Your task to perform on an android device: turn off smart reply in the gmail app Image 0: 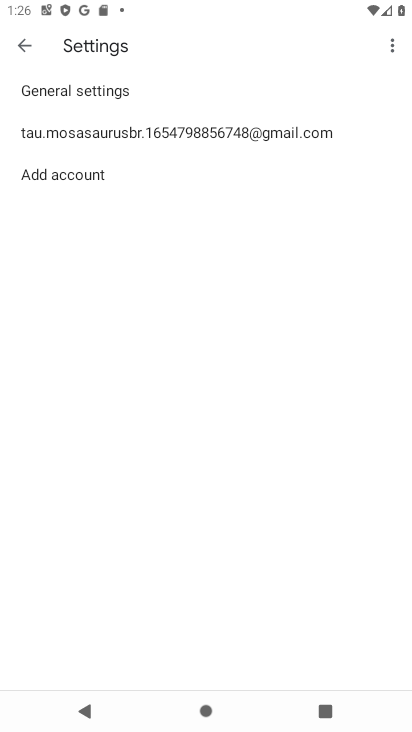
Step 0: press home button
Your task to perform on an android device: turn off smart reply in the gmail app Image 1: 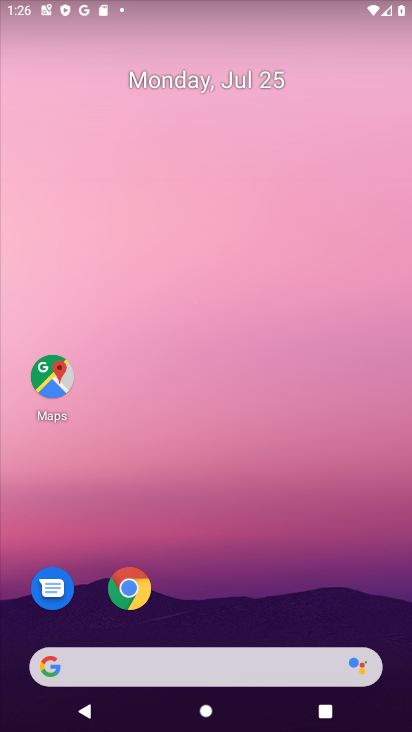
Step 1: drag from (199, 628) to (144, 131)
Your task to perform on an android device: turn off smart reply in the gmail app Image 2: 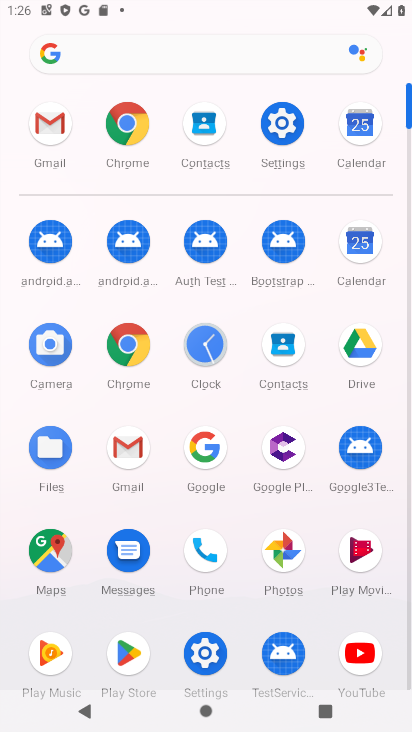
Step 2: click (45, 151)
Your task to perform on an android device: turn off smart reply in the gmail app Image 3: 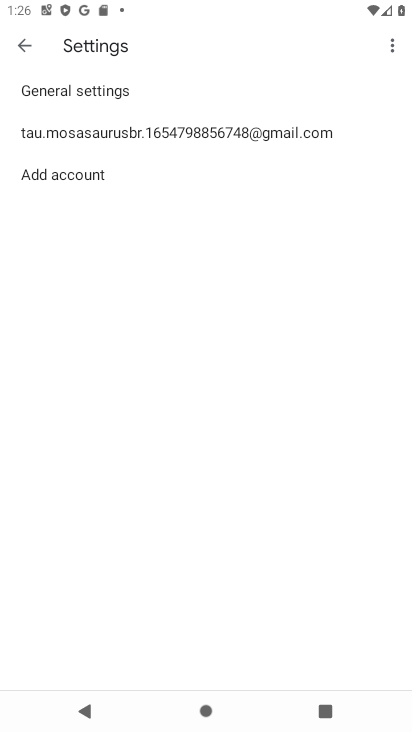
Step 3: click (20, 46)
Your task to perform on an android device: turn off smart reply in the gmail app Image 4: 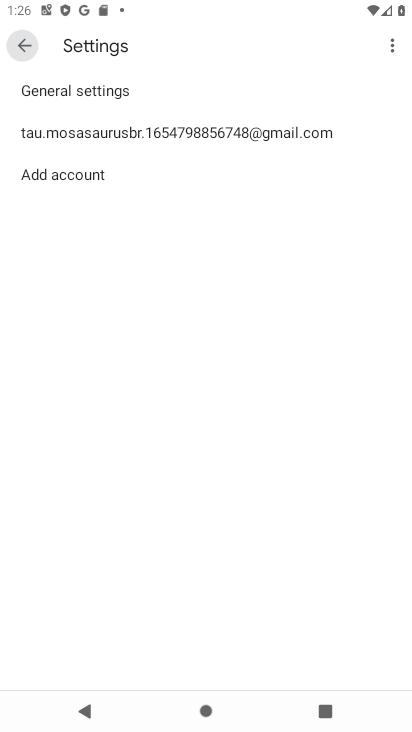
Step 4: click (20, 46)
Your task to perform on an android device: turn off smart reply in the gmail app Image 5: 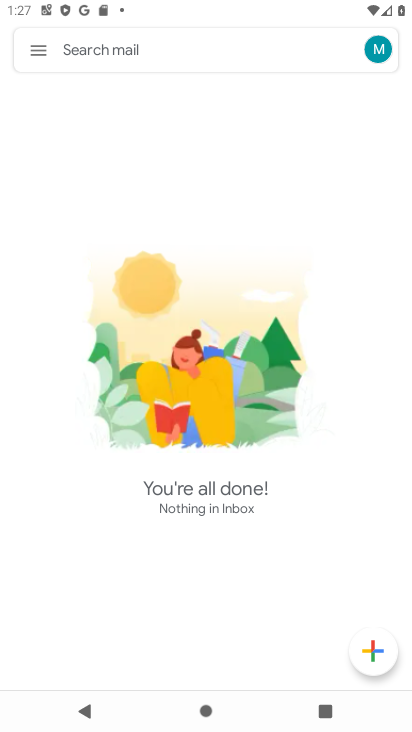
Step 5: click (43, 55)
Your task to perform on an android device: turn off smart reply in the gmail app Image 6: 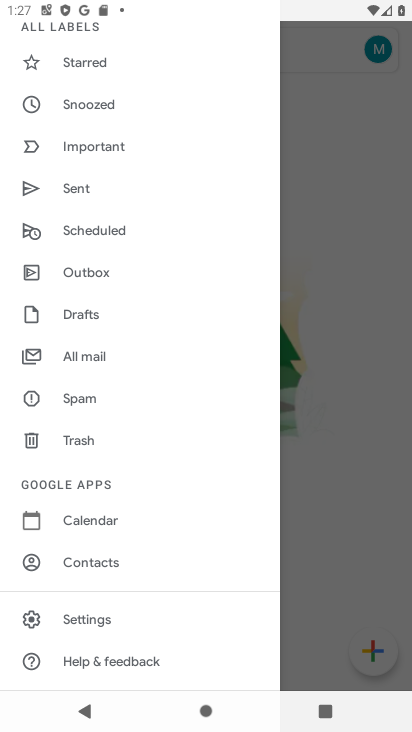
Step 6: click (94, 621)
Your task to perform on an android device: turn off smart reply in the gmail app Image 7: 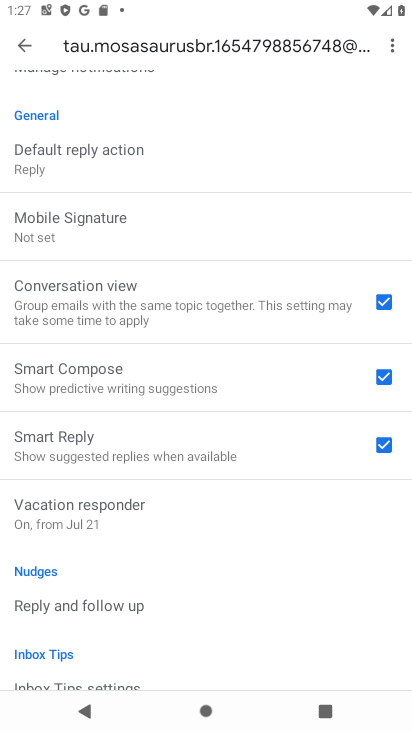
Step 7: click (385, 450)
Your task to perform on an android device: turn off smart reply in the gmail app Image 8: 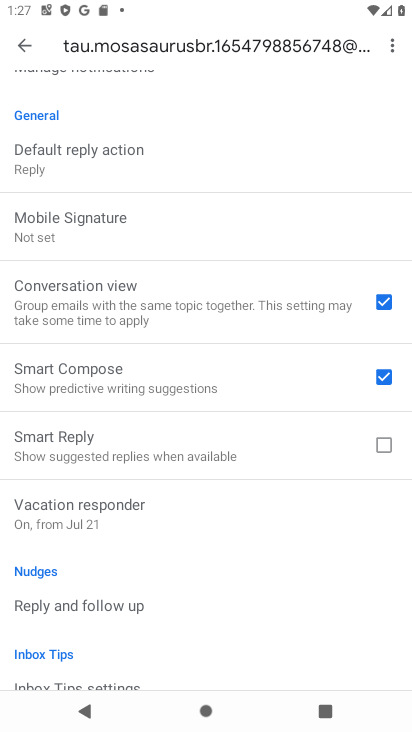
Step 8: task complete